Your task to perform on an android device: Go to internet settings Image 0: 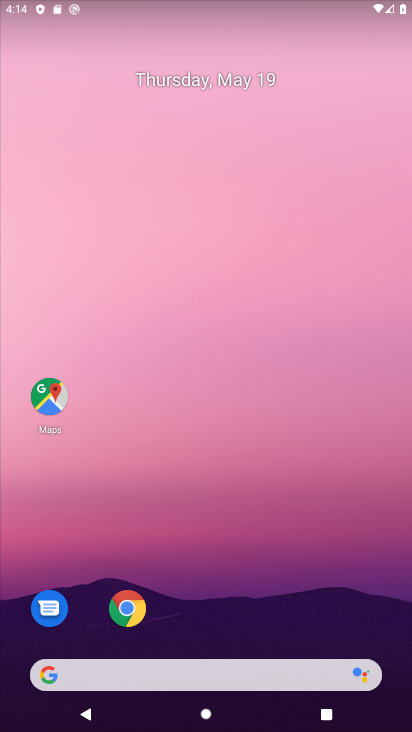
Step 0: drag from (228, 581) to (278, 138)
Your task to perform on an android device: Go to internet settings Image 1: 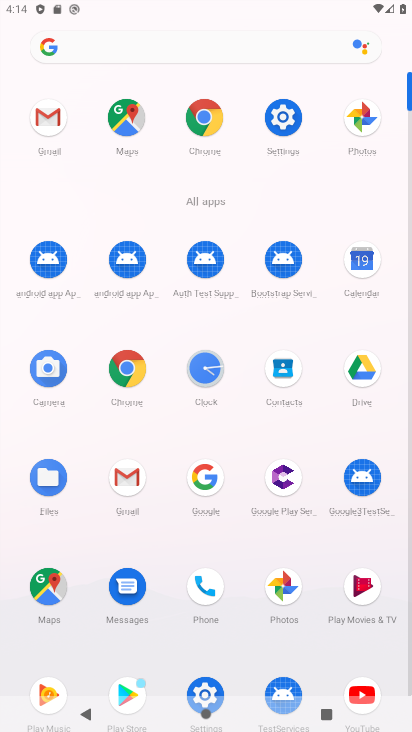
Step 1: click (283, 118)
Your task to perform on an android device: Go to internet settings Image 2: 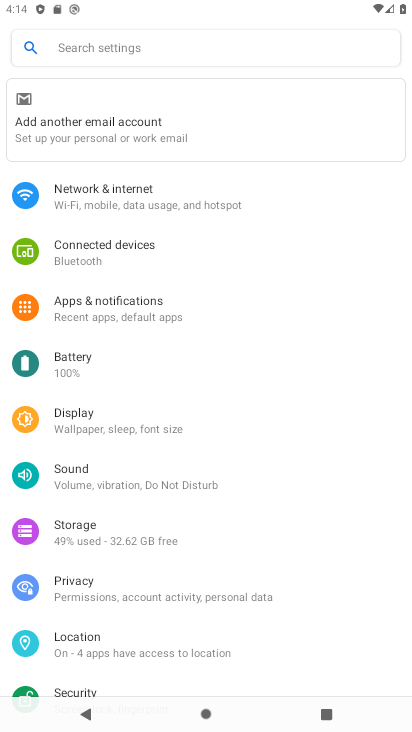
Step 2: click (174, 194)
Your task to perform on an android device: Go to internet settings Image 3: 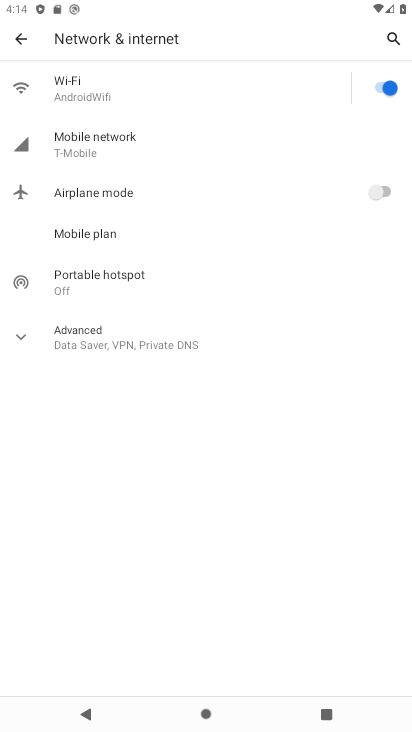
Step 3: click (114, 333)
Your task to perform on an android device: Go to internet settings Image 4: 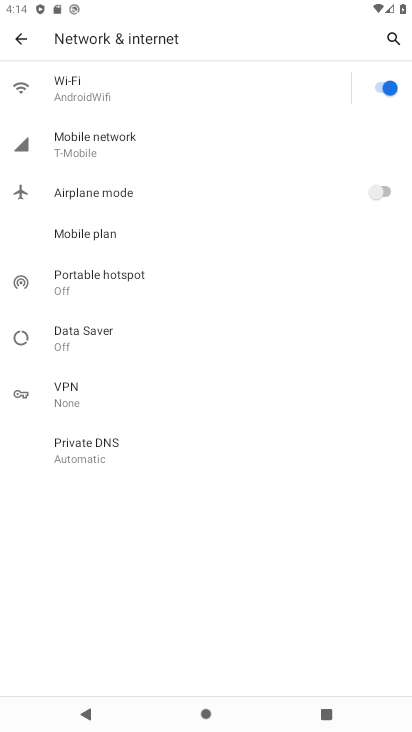
Step 4: task complete